Your task to perform on an android device: Open Google Maps Image 0: 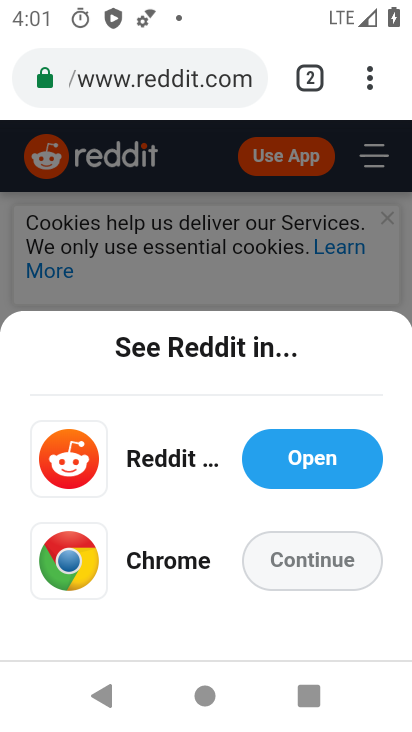
Step 0: press home button
Your task to perform on an android device: Open Google Maps Image 1: 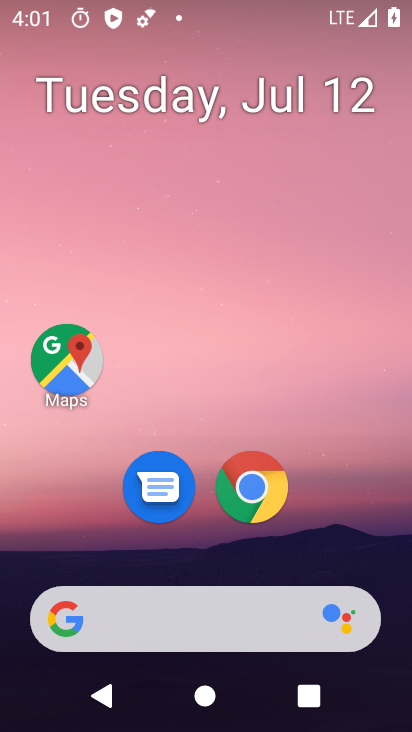
Step 1: drag from (100, 610) to (156, 81)
Your task to perform on an android device: Open Google Maps Image 2: 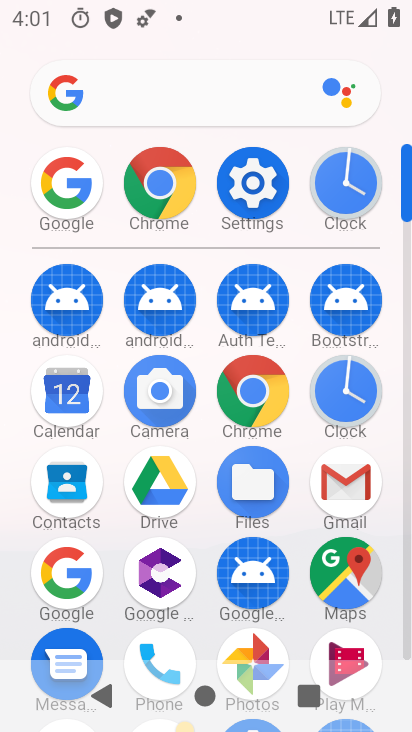
Step 2: drag from (280, 533) to (266, 270)
Your task to perform on an android device: Open Google Maps Image 3: 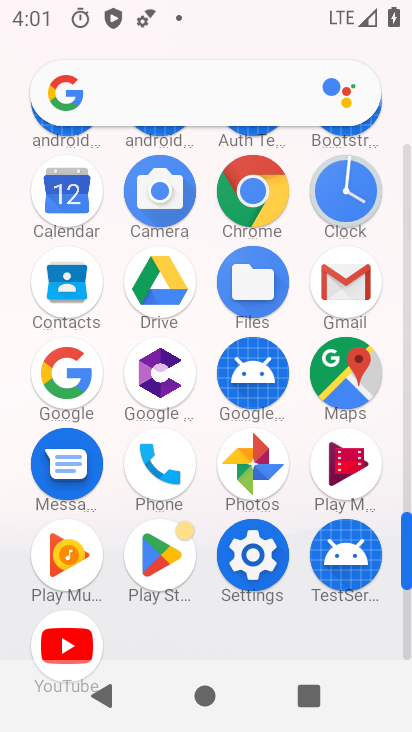
Step 3: click (354, 381)
Your task to perform on an android device: Open Google Maps Image 4: 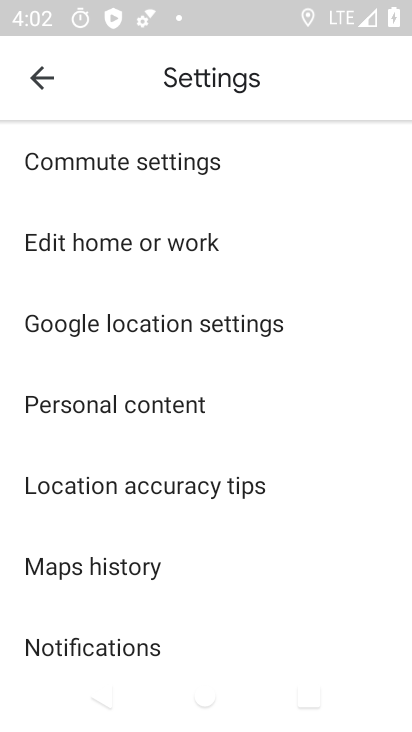
Step 4: press home button
Your task to perform on an android device: Open Google Maps Image 5: 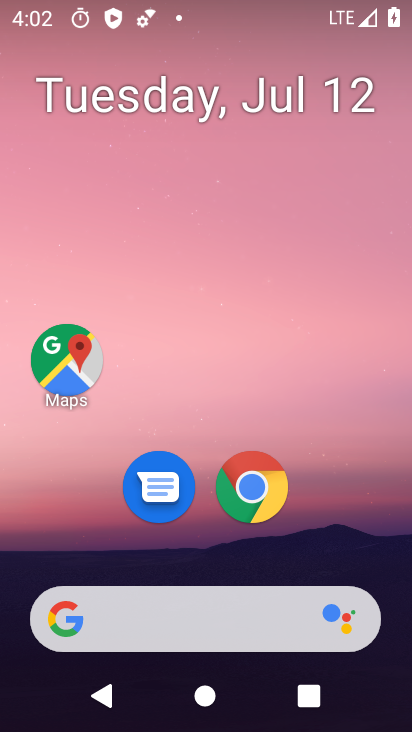
Step 5: drag from (143, 576) to (201, 319)
Your task to perform on an android device: Open Google Maps Image 6: 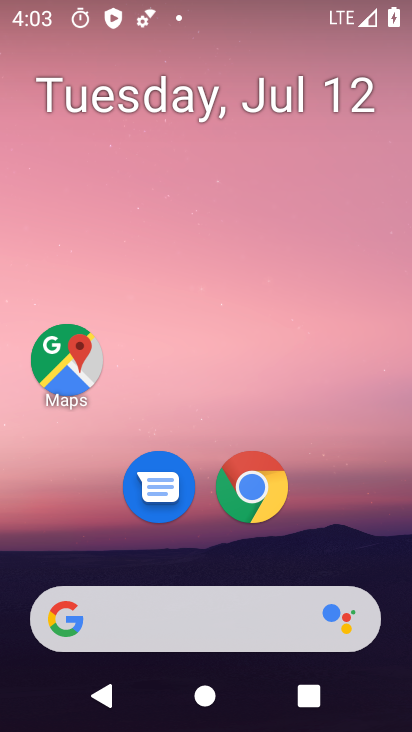
Step 6: drag from (208, 585) to (248, 158)
Your task to perform on an android device: Open Google Maps Image 7: 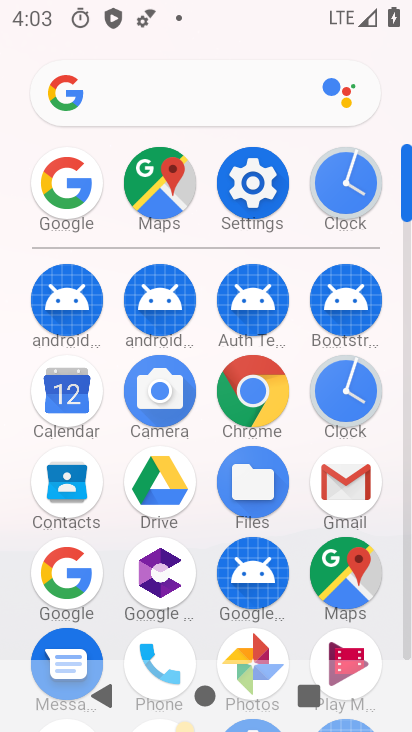
Step 7: click (359, 568)
Your task to perform on an android device: Open Google Maps Image 8: 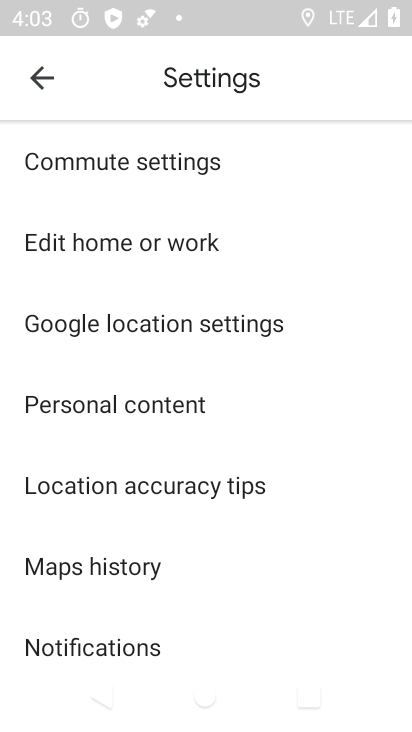
Step 8: click (50, 82)
Your task to perform on an android device: Open Google Maps Image 9: 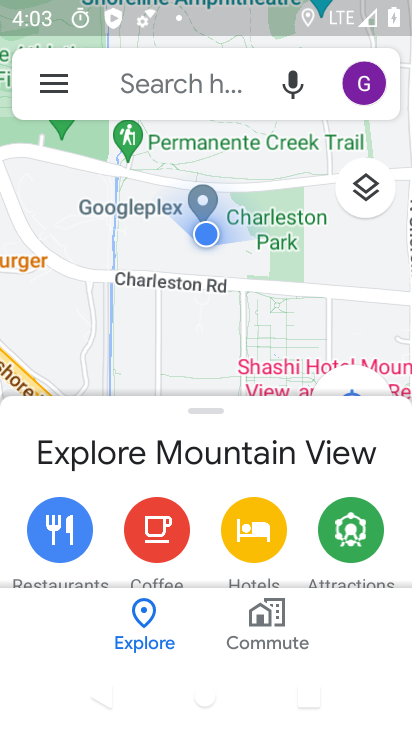
Step 9: task complete